Your task to perform on an android device: turn off improve location accuracy Image 0: 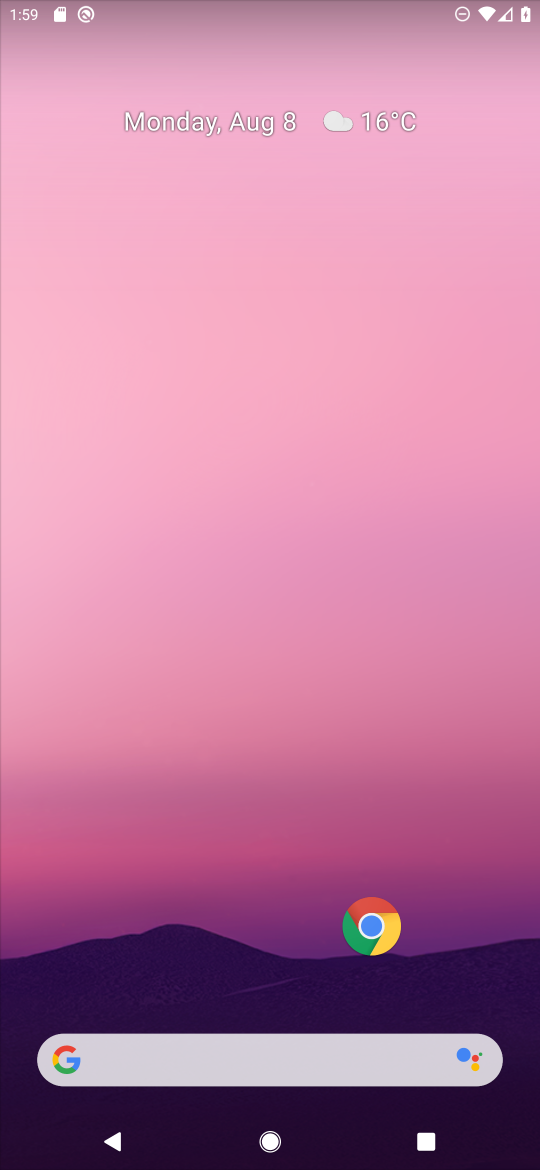
Step 0: drag from (231, 977) to (287, 168)
Your task to perform on an android device: turn off improve location accuracy Image 1: 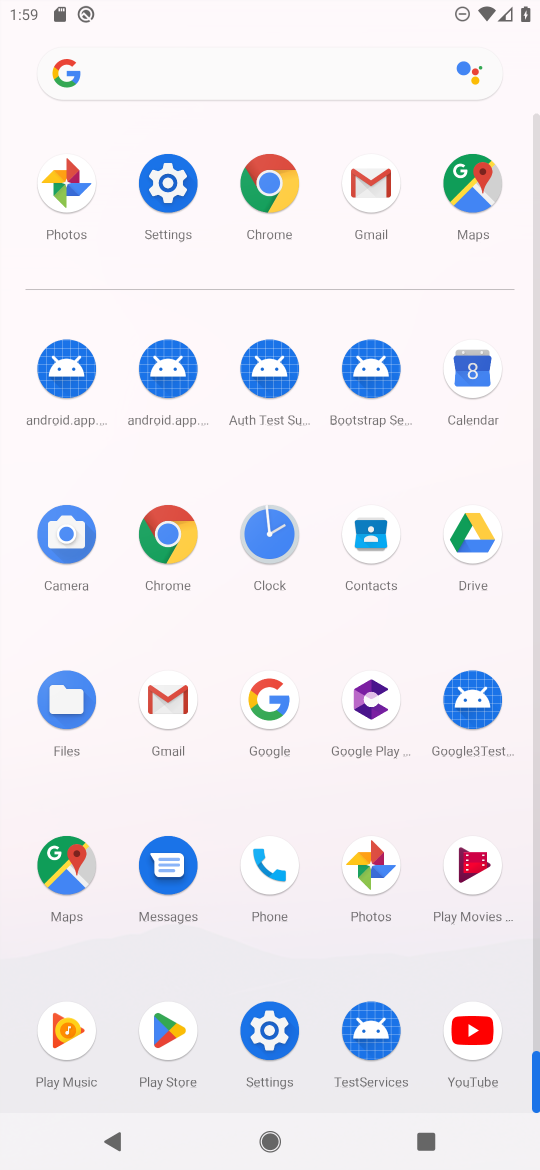
Step 1: click (155, 166)
Your task to perform on an android device: turn off improve location accuracy Image 2: 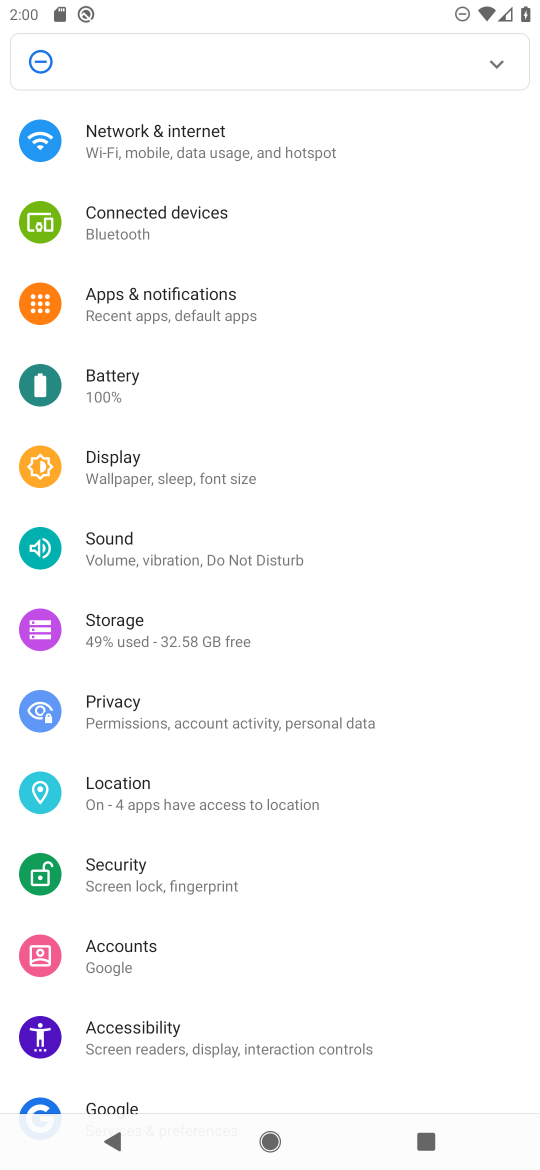
Step 2: click (184, 804)
Your task to perform on an android device: turn off improve location accuracy Image 3: 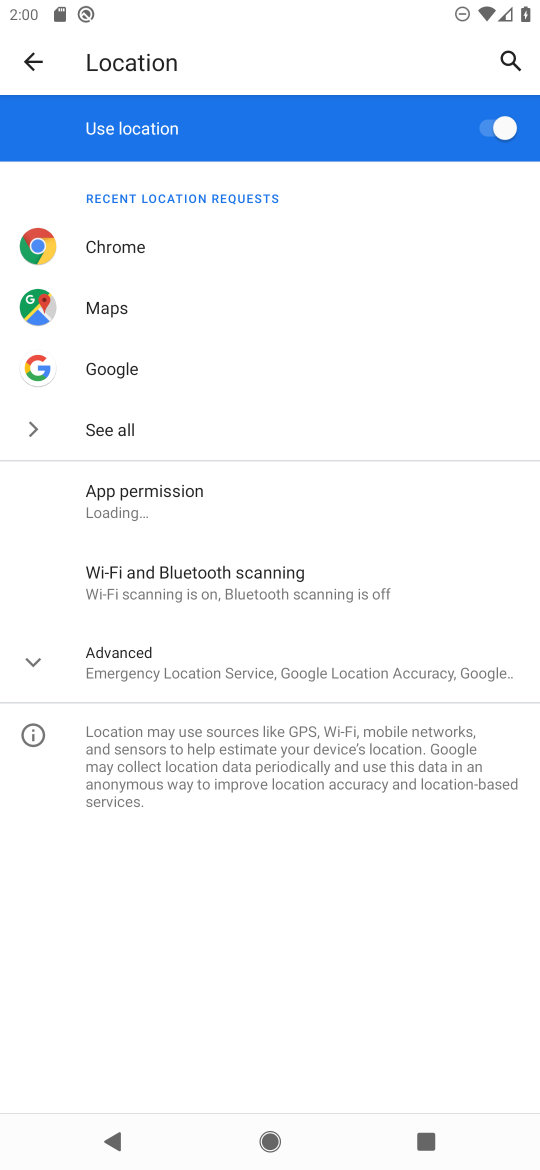
Step 3: click (486, 129)
Your task to perform on an android device: turn off improve location accuracy Image 4: 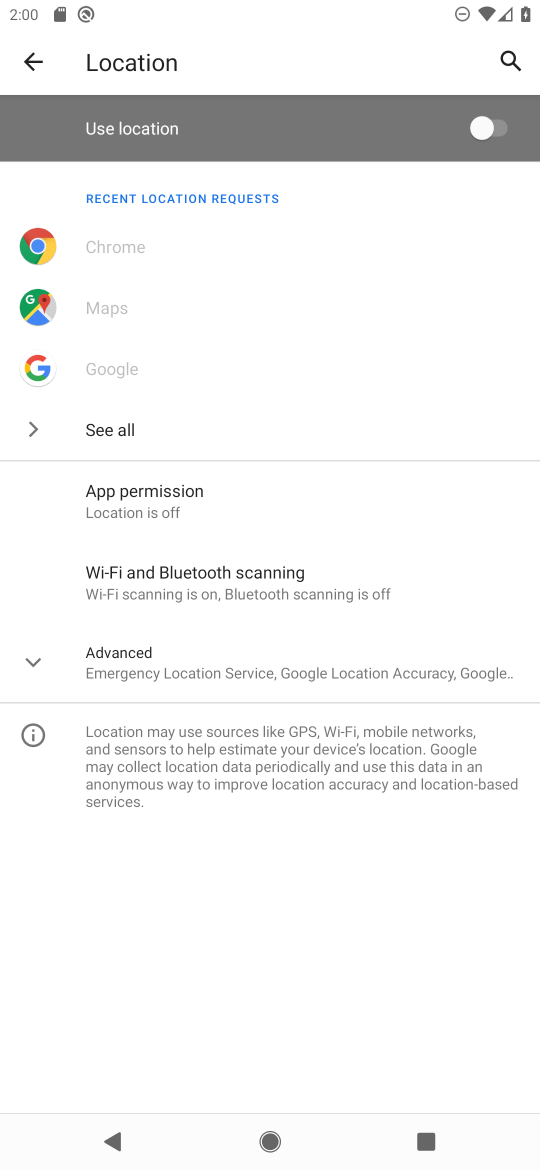
Step 4: click (486, 129)
Your task to perform on an android device: turn off improve location accuracy Image 5: 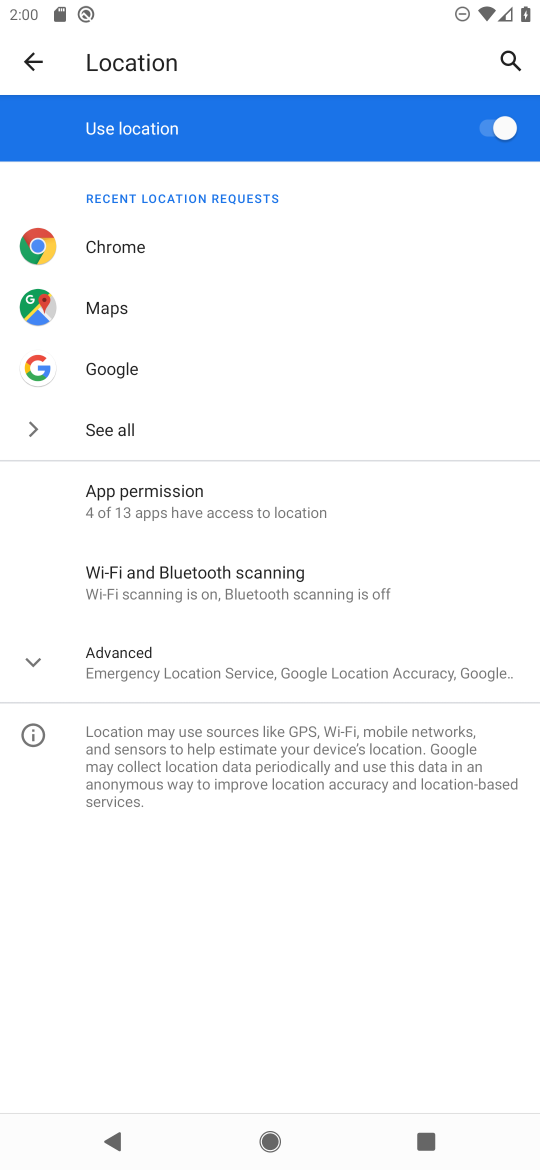
Step 5: click (176, 651)
Your task to perform on an android device: turn off improve location accuracy Image 6: 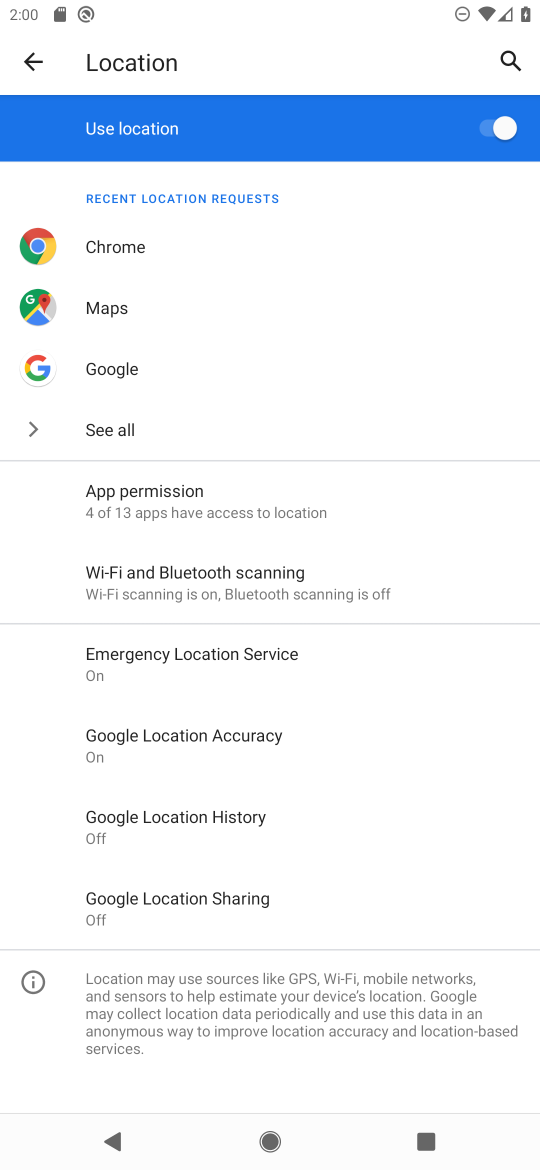
Step 6: click (184, 730)
Your task to perform on an android device: turn off improve location accuracy Image 7: 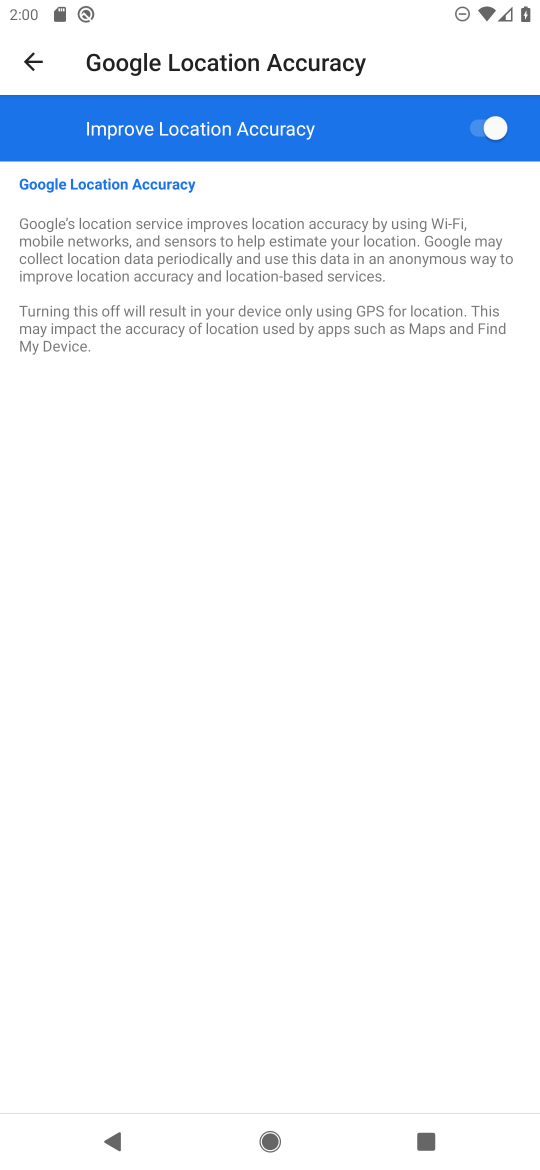
Step 7: click (478, 137)
Your task to perform on an android device: turn off improve location accuracy Image 8: 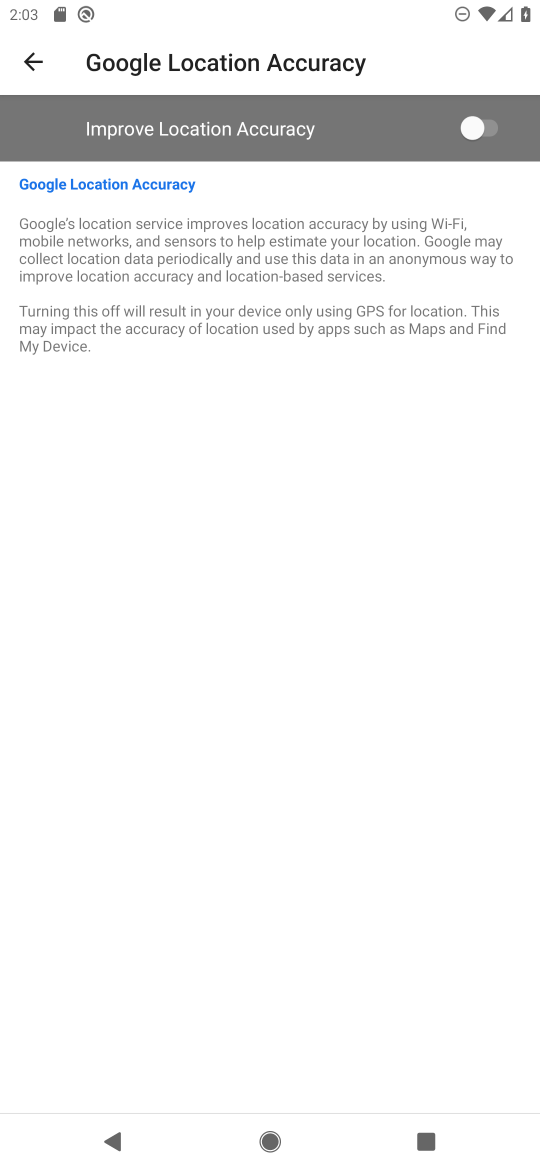
Step 8: task complete